Your task to perform on an android device: change notifications settings Image 0: 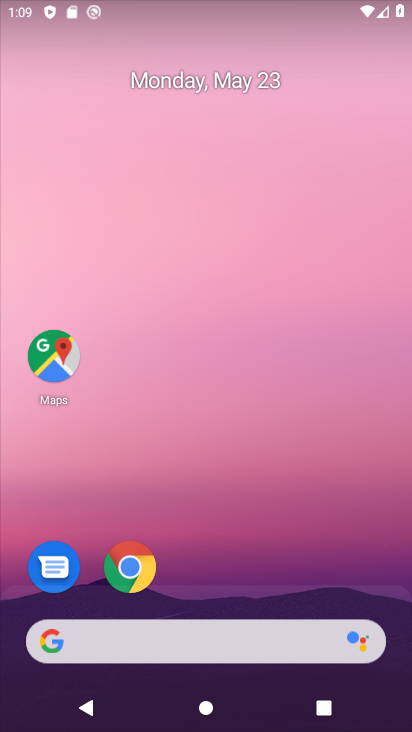
Step 0: drag from (239, 597) to (233, 88)
Your task to perform on an android device: change notifications settings Image 1: 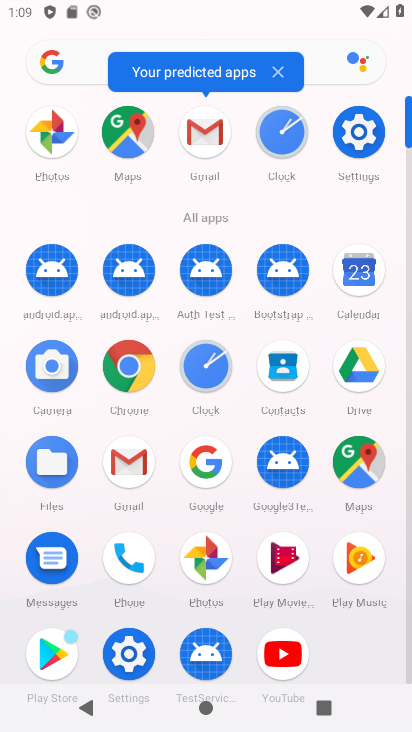
Step 1: click (364, 153)
Your task to perform on an android device: change notifications settings Image 2: 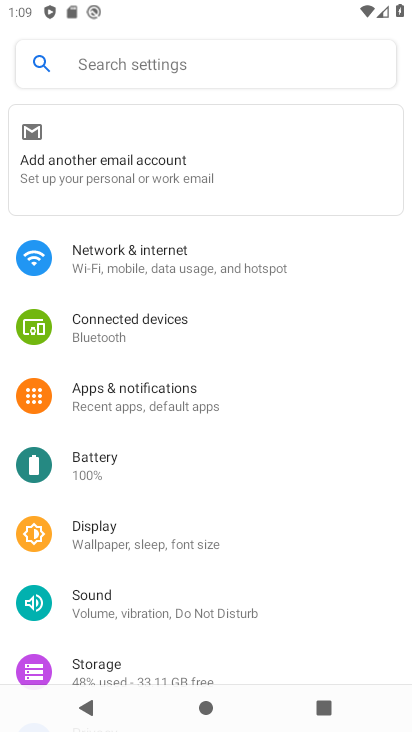
Step 2: drag from (197, 531) to (186, 461)
Your task to perform on an android device: change notifications settings Image 3: 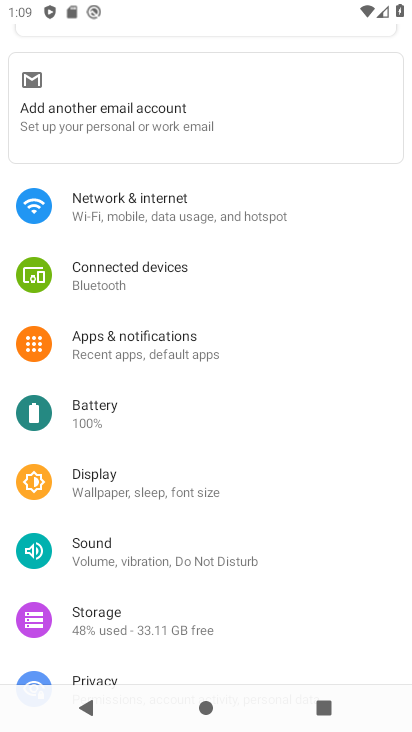
Step 3: click (193, 364)
Your task to perform on an android device: change notifications settings Image 4: 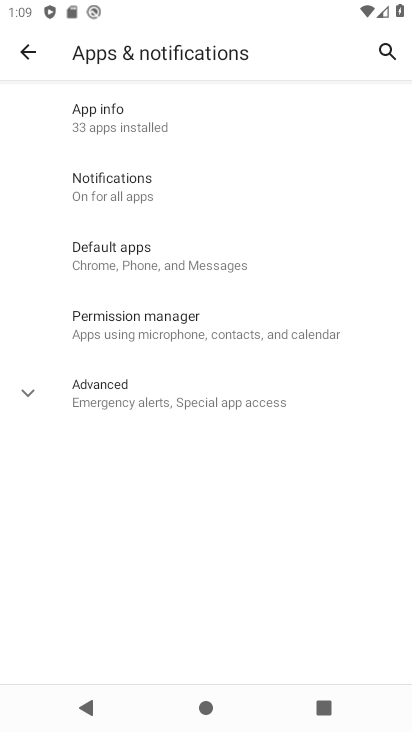
Step 4: click (120, 191)
Your task to perform on an android device: change notifications settings Image 5: 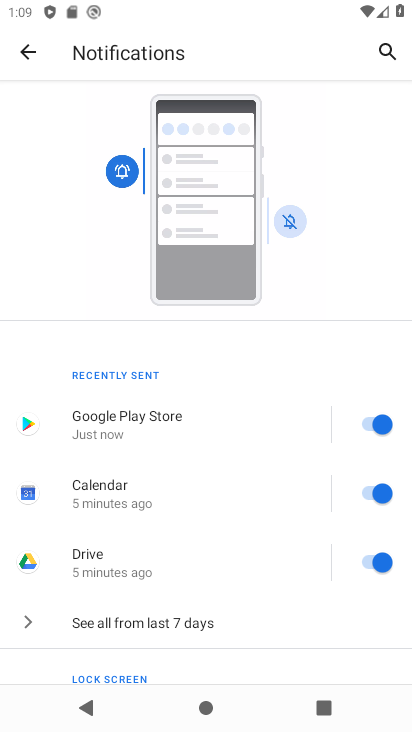
Step 5: click (383, 431)
Your task to perform on an android device: change notifications settings Image 6: 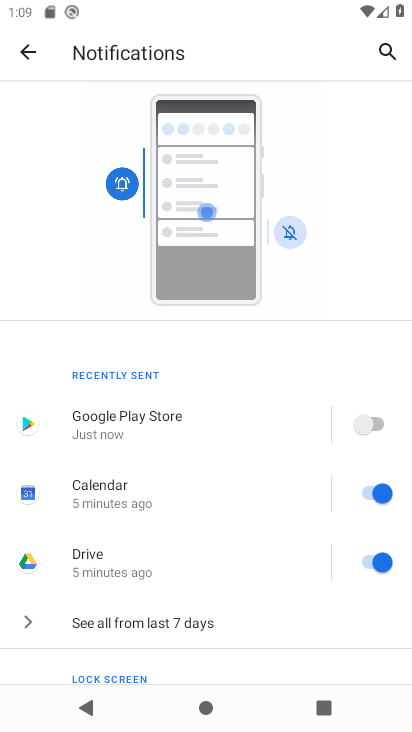
Step 6: task complete